Your task to perform on an android device: Go to Google Image 0: 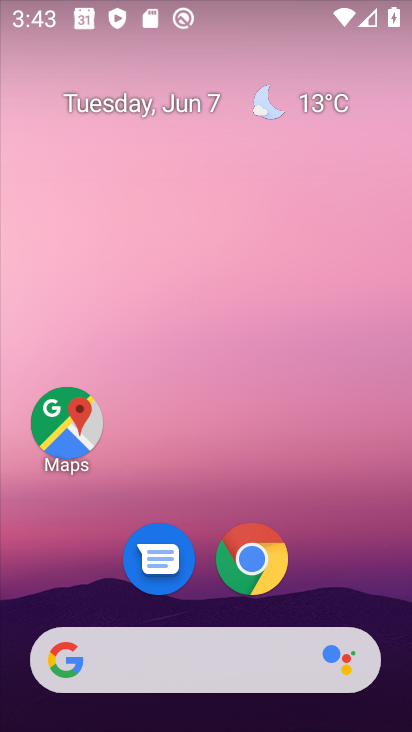
Step 0: drag from (163, 634) to (140, 378)
Your task to perform on an android device: Go to Google Image 1: 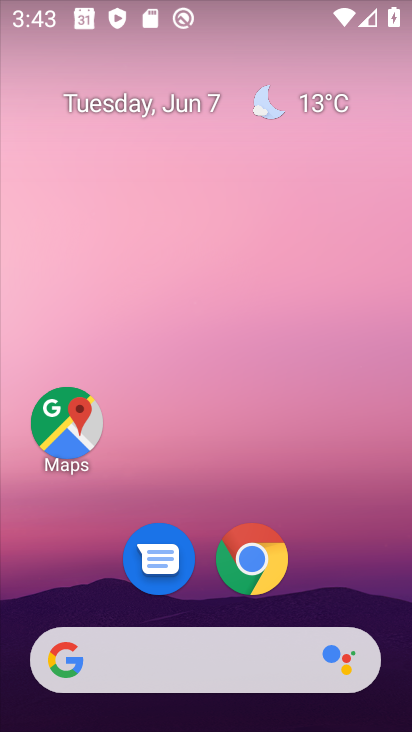
Step 1: drag from (225, 626) to (197, 169)
Your task to perform on an android device: Go to Google Image 2: 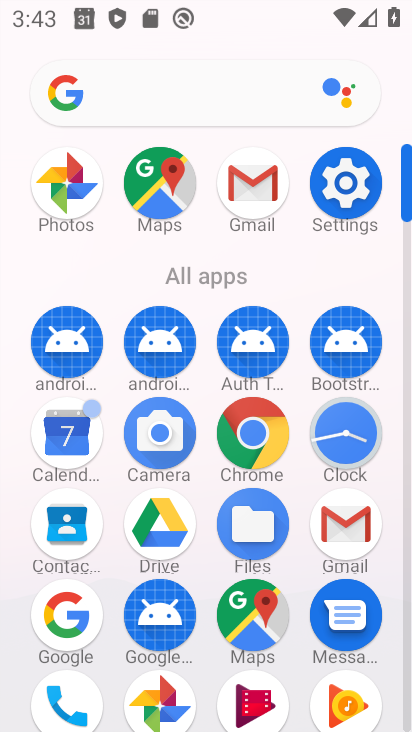
Step 2: click (69, 636)
Your task to perform on an android device: Go to Google Image 3: 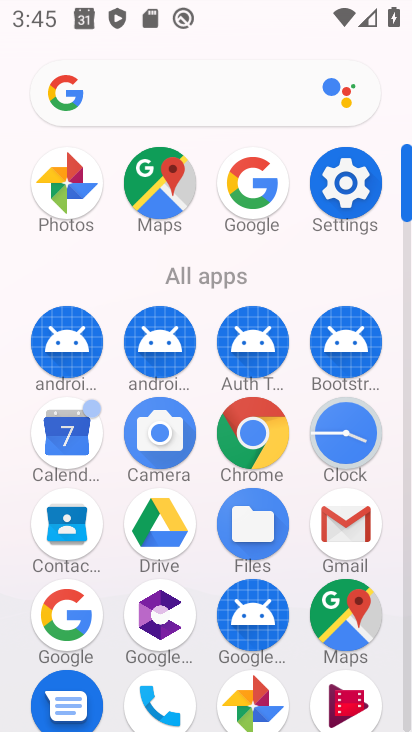
Step 3: click (56, 631)
Your task to perform on an android device: Go to Google Image 4: 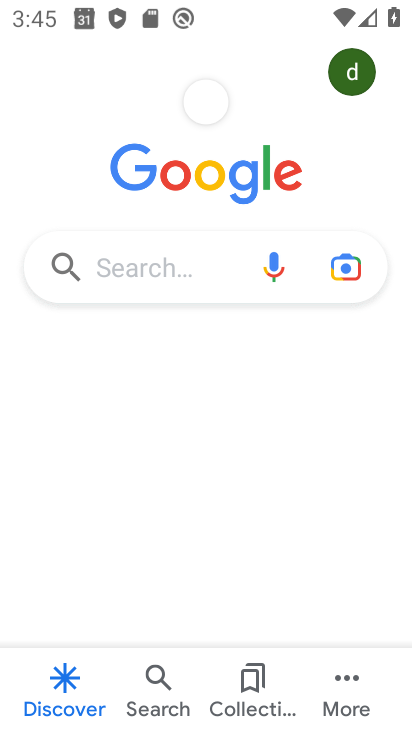
Step 4: task complete